Your task to perform on an android device: make emails show in primary in the gmail app Image 0: 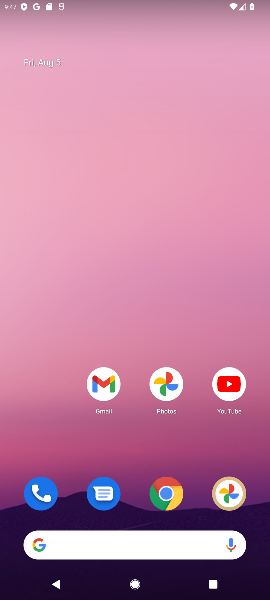
Step 0: press home button
Your task to perform on an android device: make emails show in primary in the gmail app Image 1: 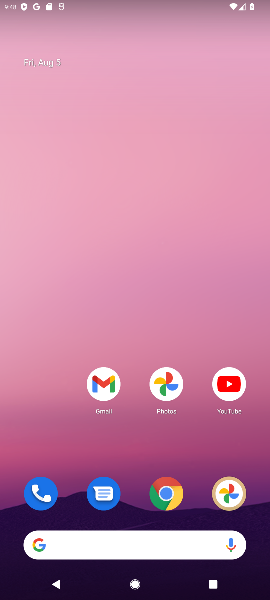
Step 1: drag from (139, 448) to (176, 2)
Your task to perform on an android device: make emails show in primary in the gmail app Image 2: 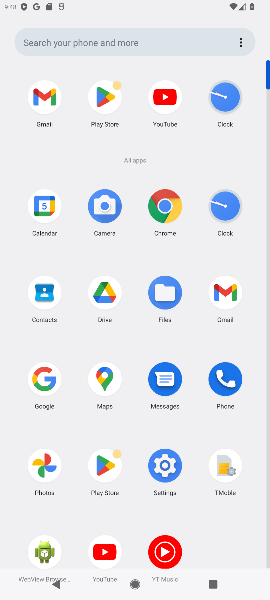
Step 2: click (222, 289)
Your task to perform on an android device: make emails show in primary in the gmail app Image 3: 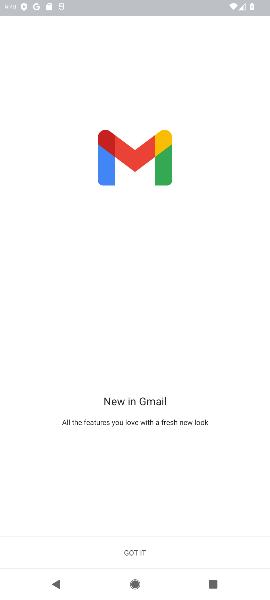
Step 3: click (135, 552)
Your task to perform on an android device: make emails show in primary in the gmail app Image 4: 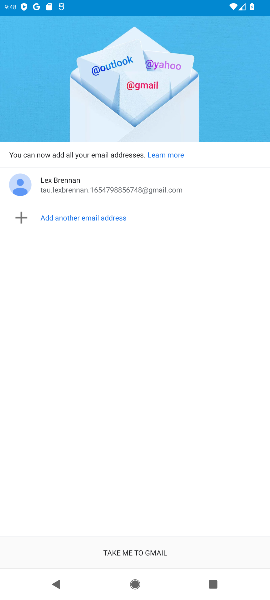
Step 4: click (145, 546)
Your task to perform on an android device: make emails show in primary in the gmail app Image 5: 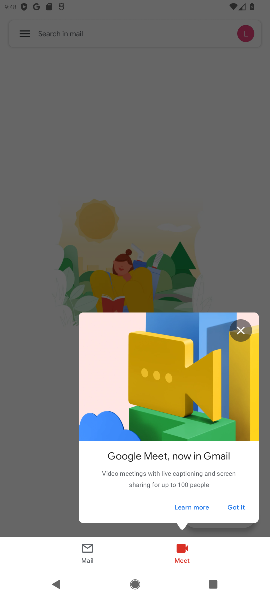
Step 5: click (234, 504)
Your task to perform on an android device: make emails show in primary in the gmail app Image 6: 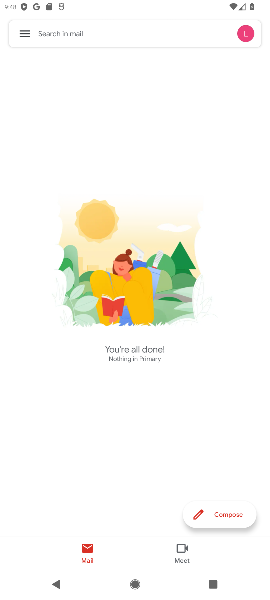
Step 6: click (22, 31)
Your task to perform on an android device: make emails show in primary in the gmail app Image 7: 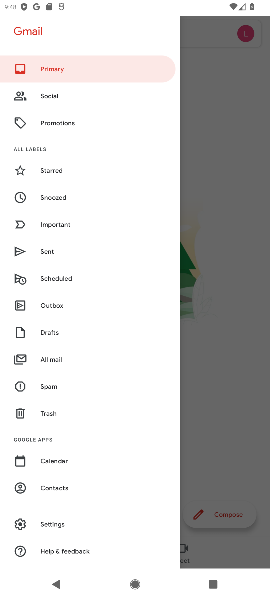
Step 7: click (67, 519)
Your task to perform on an android device: make emails show in primary in the gmail app Image 8: 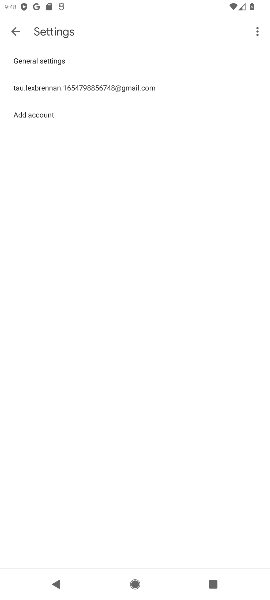
Step 8: click (79, 91)
Your task to perform on an android device: make emails show in primary in the gmail app Image 9: 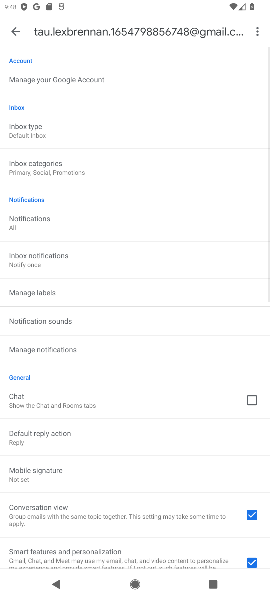
Step 9: click (65, 132)
Your task to perform on an android device: make emails show in primary in the gmail app Image 10: 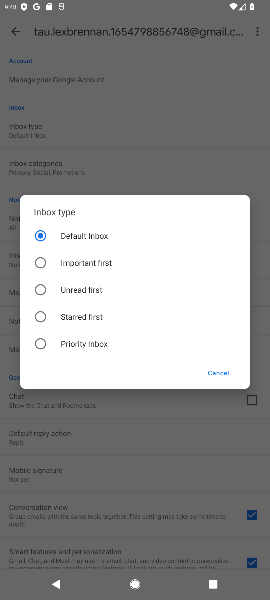
Step 10: click (61, 237)
Your task to perform on an android device: make emails show in primary in the gmail app Image 11: 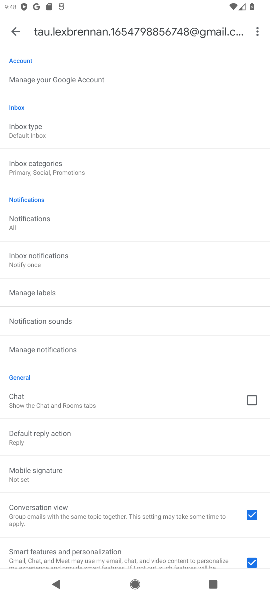
Step 11: task complete